Your task to perform on an android device: Open Chrome and go to settings Image 0: 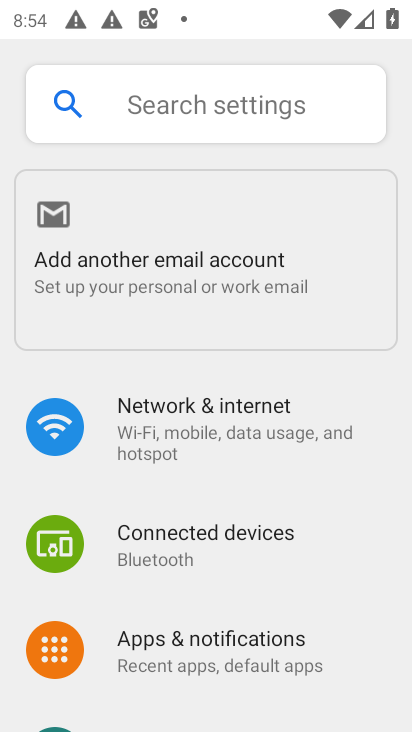
Step 0: press home button
Your task to perform on an android device: Open Chrome and go to settings Image 1: 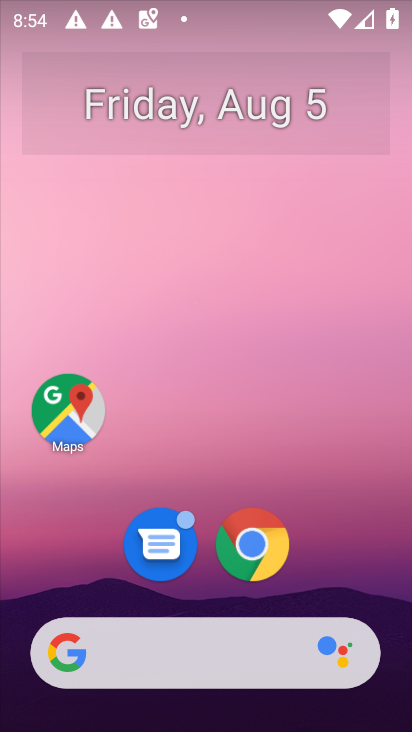
Step 1: drag from (314, 671) to (291, 15)
Your task to perform on an android device: Open Chrome and go to settings Image 2: 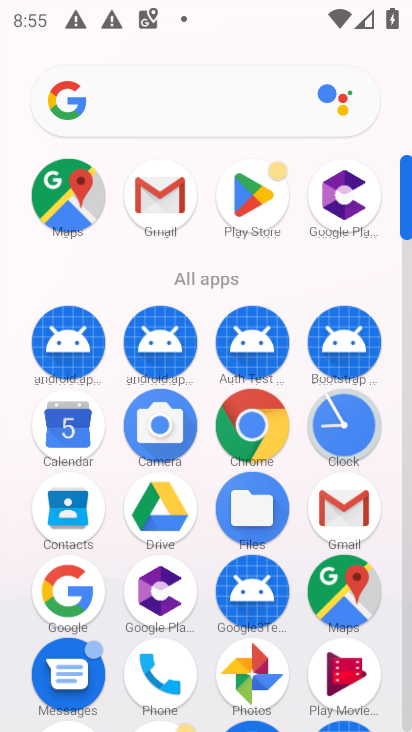
Step 2: click (244, 438)
Your task to perform on an android device: Open Chrome and go to settings Image 3: 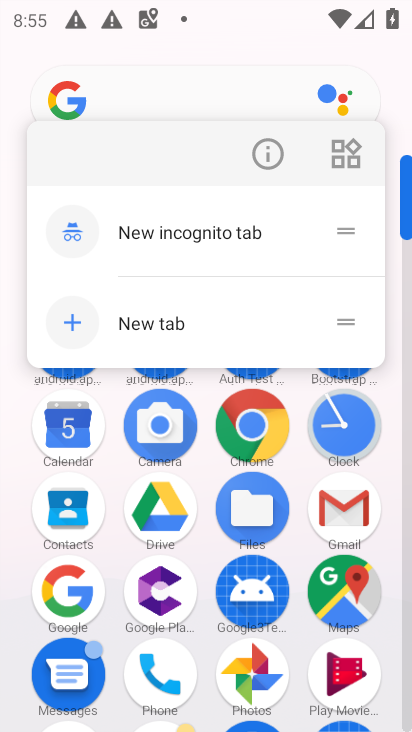
Step 3: click (240, 427)
Your task to perform on an android device: Open Chrome and go to settings Image 4: 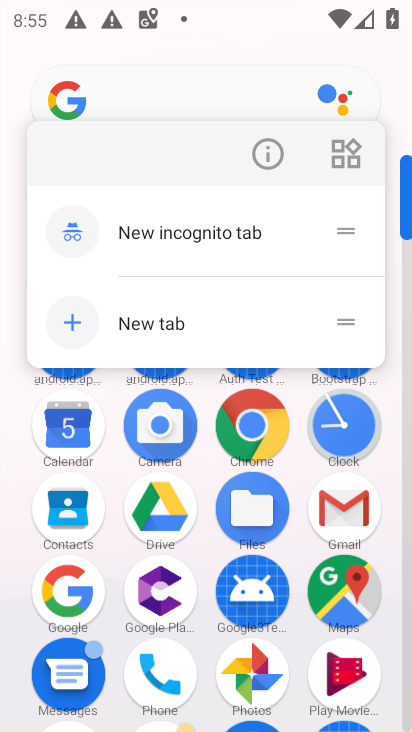
Step 4: click (240, 429)
Your task to perform on an android device: Open Chrome and go to settings Image 5: 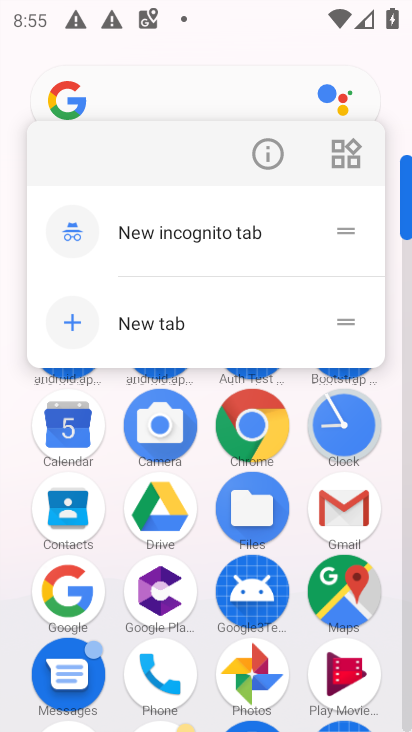
Step 5: click (240, 429)
Your task to perform on an android device: Open Chrome and go to settings Image 6: 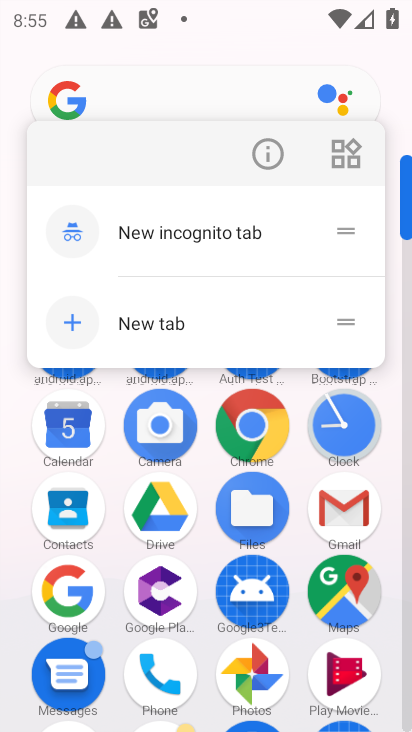
Step 6: click (235, 441)
Your task to perform on an android device: Open Chrome and go to settings Image 7: 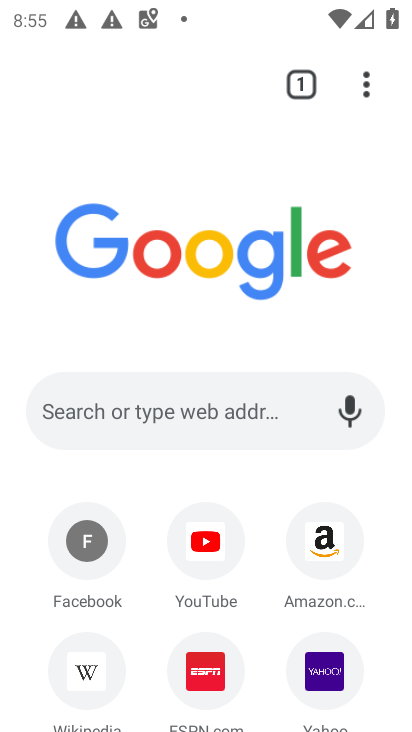
Step 7: task complete